Your task to perform on an android device: Set the phone to "Do not disturb". Image 0: 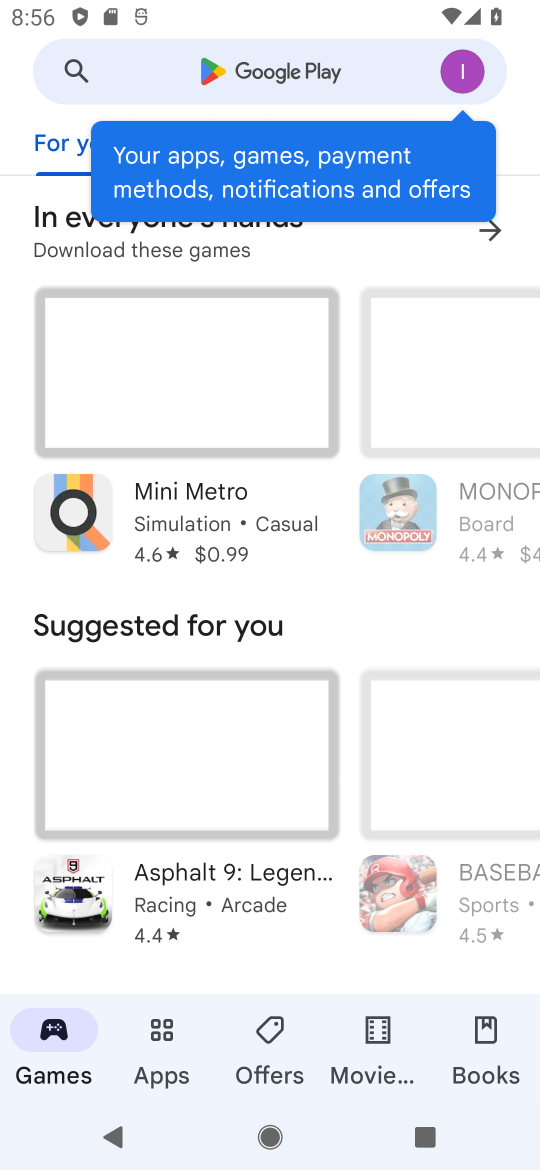
Step 0: press home button
Your task to perform on an android device: Set the phone to "Do not disturb". Image 1: 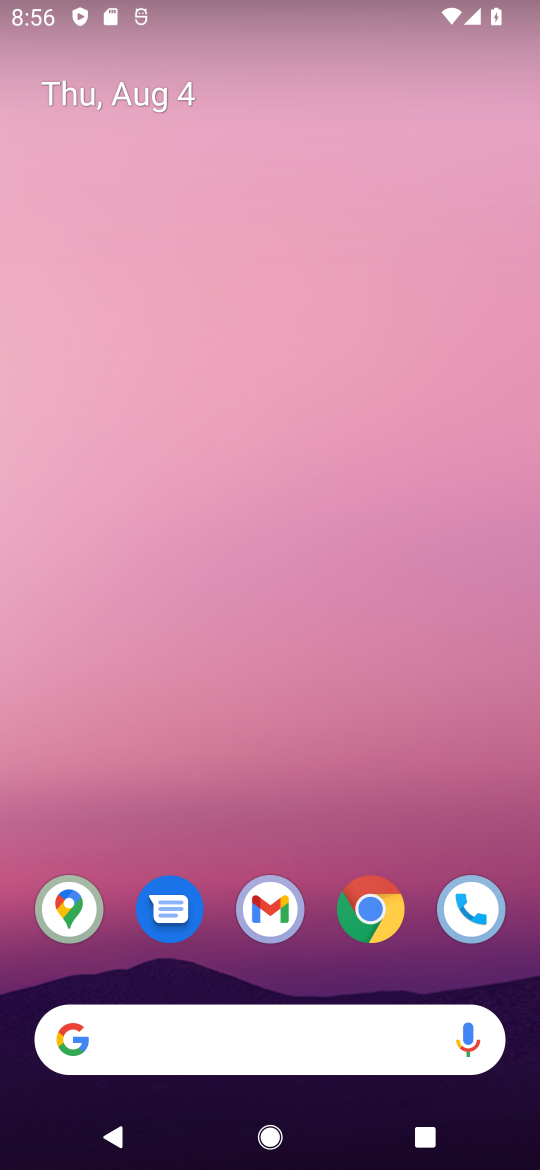
Step 1: drag from (314, 799) to (330, 329)
Your task to perform on an android device: Set the phone to "Do not disturb". Image 2: 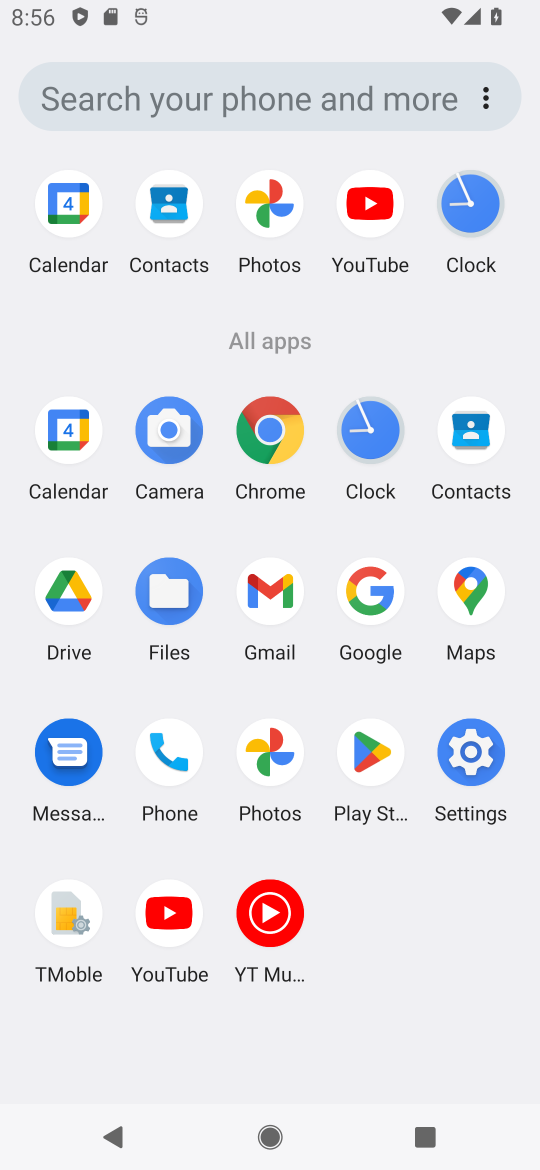
Step 2: click (471, 761)
Your task to perform on an android device: Set the phone to "Do not disturb". Image 3: 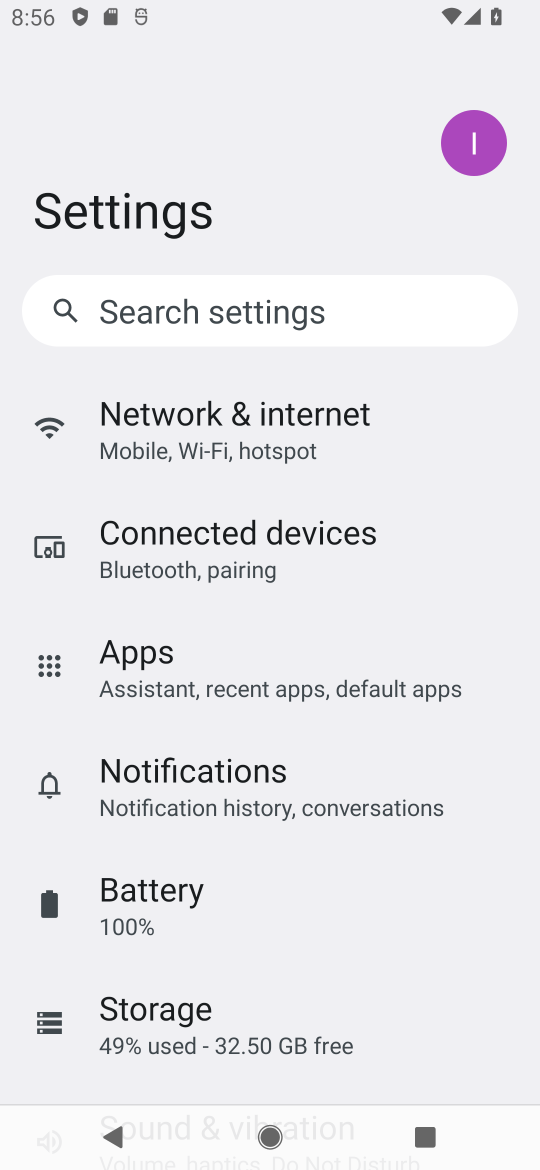
Step 3: drag from (428, 982) to (464, 687)
Your task to perform on an android device: Set the phone to "Do not disturb". Image 4: 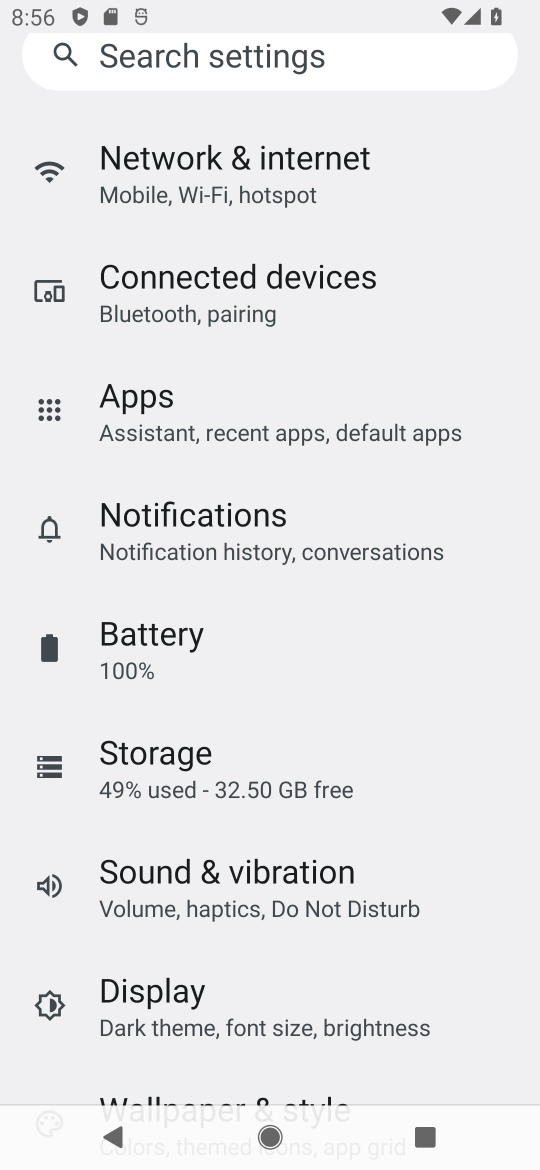
Step 4: drag from (465, 940) to (469, 640)
Your task to perform on an android device: Set the phone to "Do not disturb". Image 5: 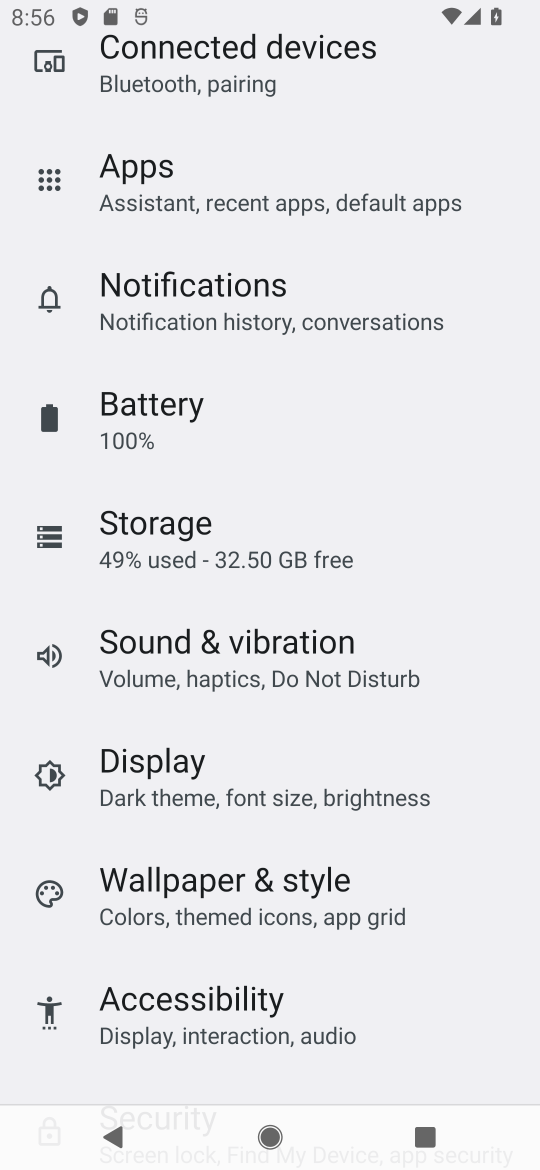
Step 5: drag from (467, 952) to (476, 645)
Your task to perform on an android device: Set the phone to "Do not disturb". Image 6: 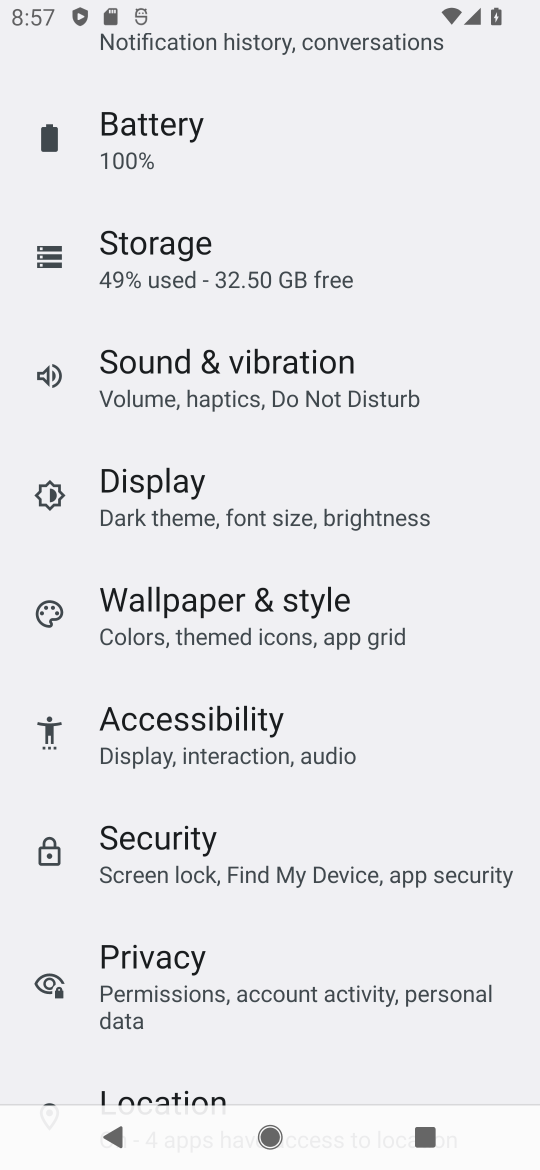
Step 6: drag from (410, 990) to (434, 650)
Your task to perform on an android device: Set the phone to "Do not disturb". Image 7: 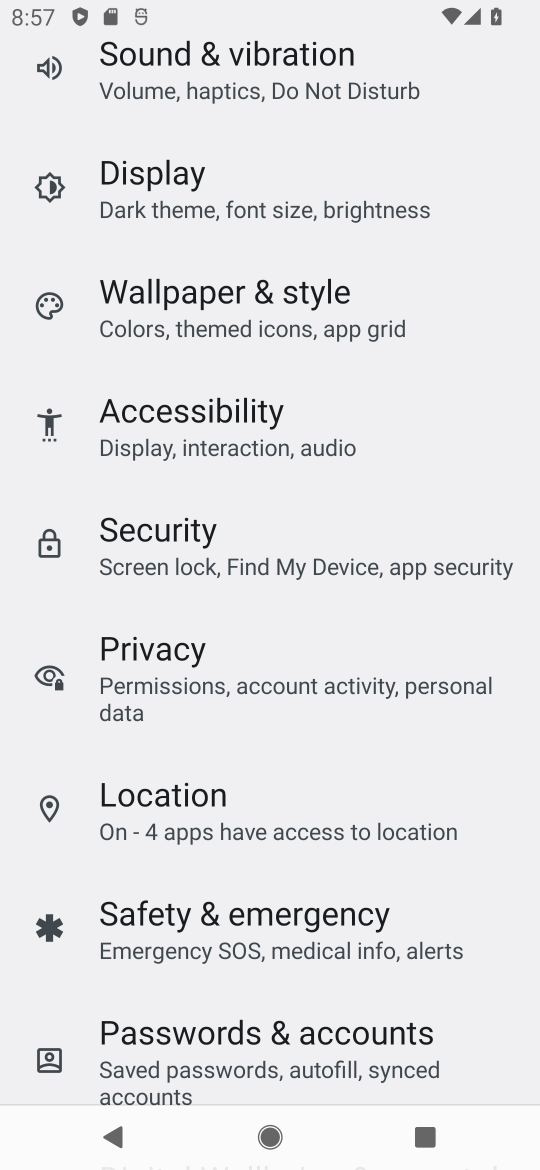
Step 7: drag from (490, 998) to (483, 692)
Your task to perform on an android device: Set the phone to "Do not disturb". Image 8: 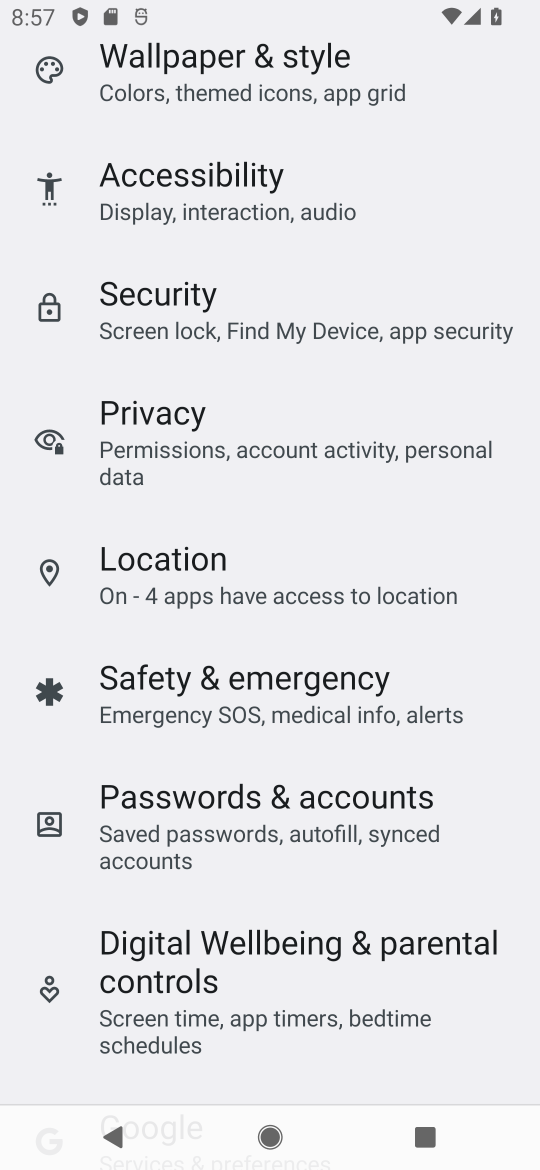
Step 8: drag from (456, 1019) to (476, 628)
Your task to perform on an android device: Set the phone to "Do not disturb". Image 9: 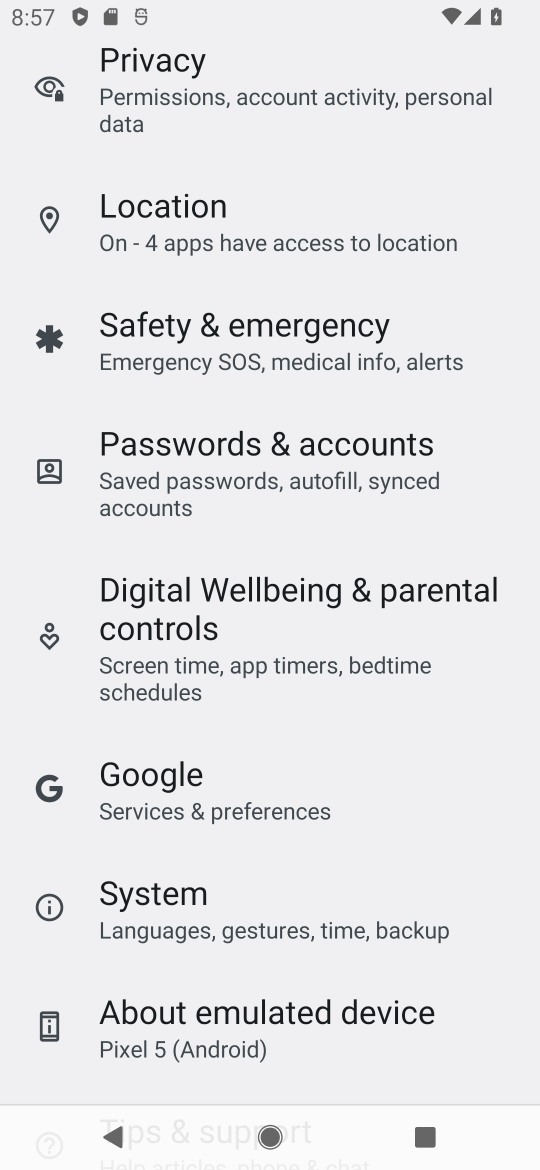
Step 9: drag from (466, 870) to (476, 566)
Your task to perform on an android device: Set the phone to "Do not disturb". Image 10: 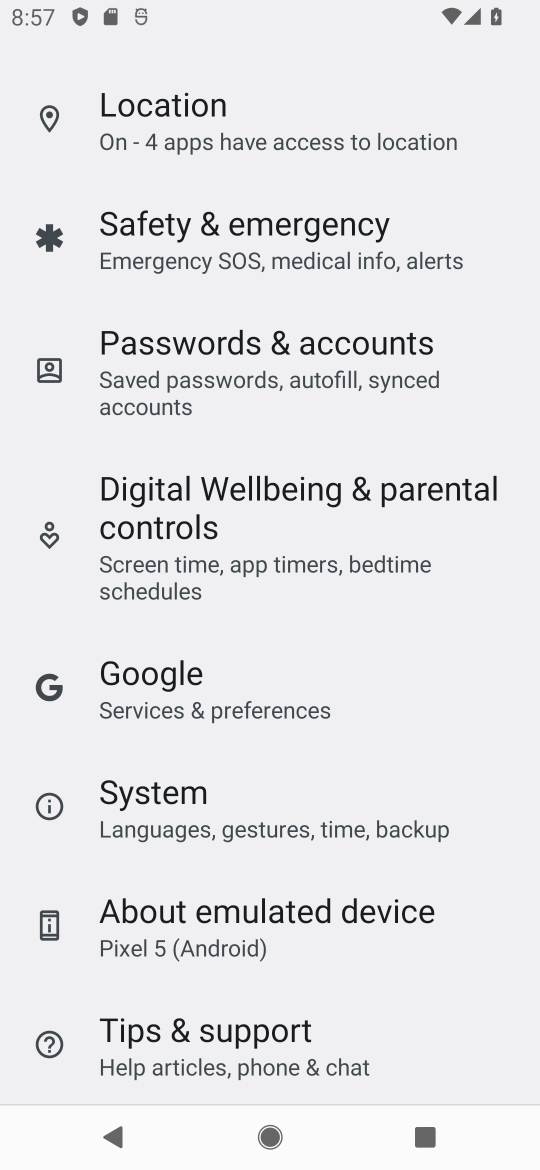
Step 10: drag from (474, 555) to (486, 803)
Your task to perform on an android device: Set the phone to "Do not disturb". Image 11: 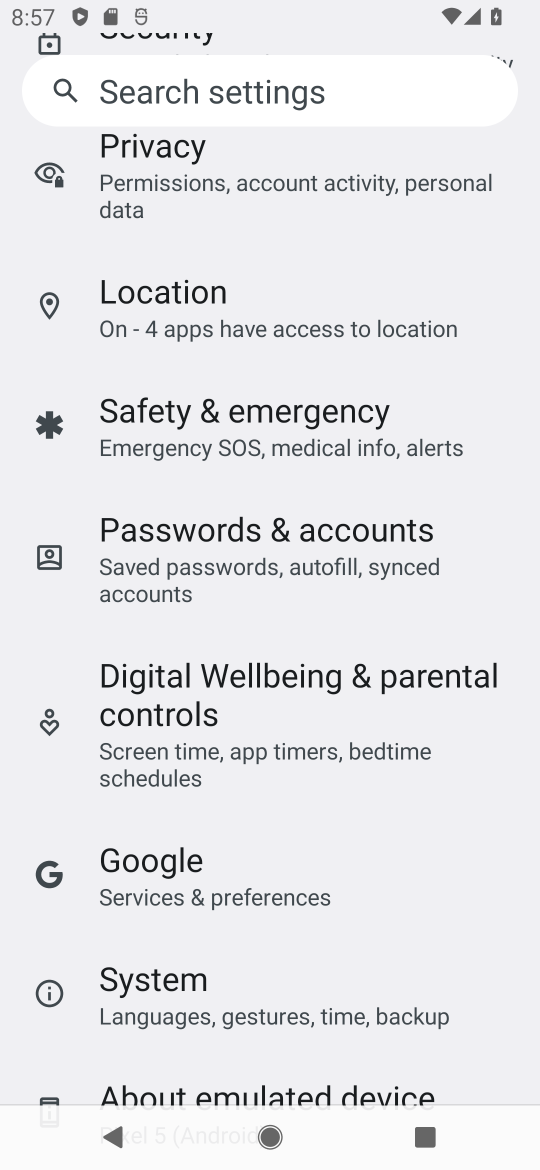
Step 11: drag from (503, 348) to (486, 638)
Your task to perform on an android device: Set the phone to "Do not disturb". Image 12: 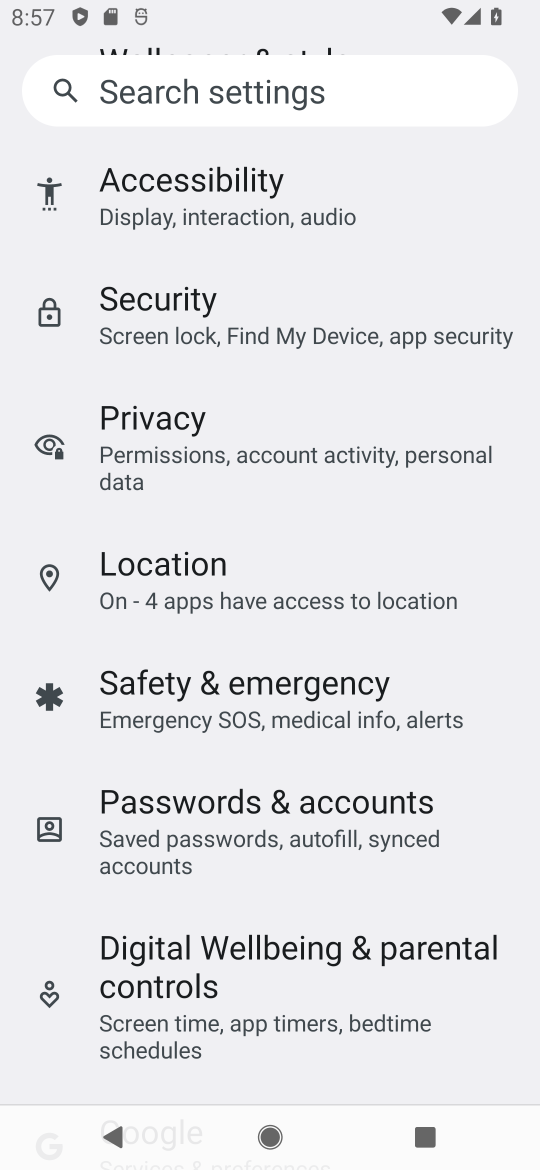
Step 12: drag from (473, 315) to (474, 657)
Your task to perform on an android device: Set the phone to "Do not disturb". Image 13: 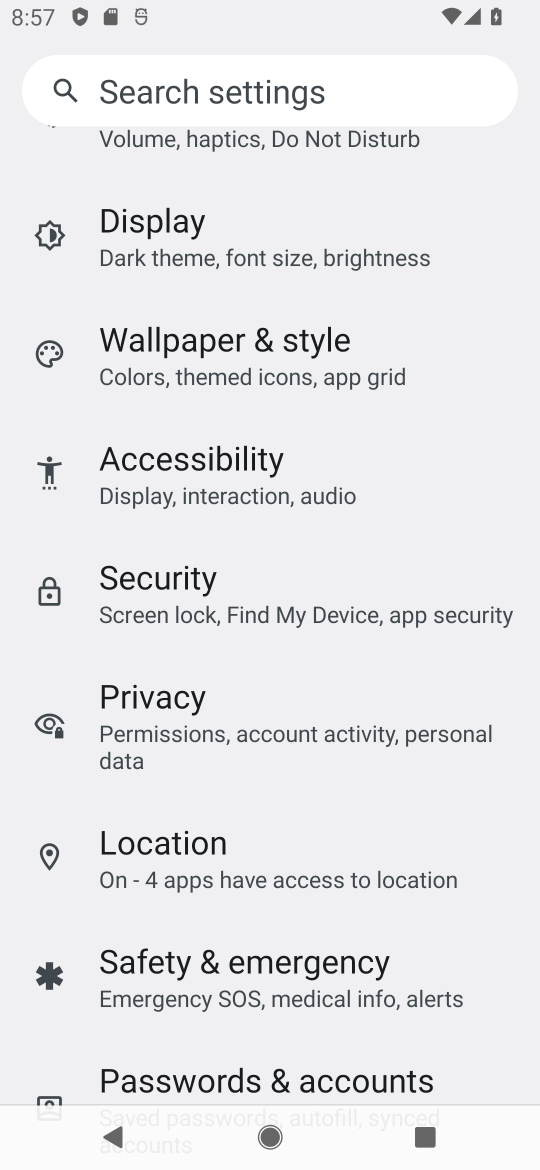
Step 13: drag from (458, 322) to (449, 683)
Your task to perform on an android device: Set the phone to "Do not disturb". Image 14: 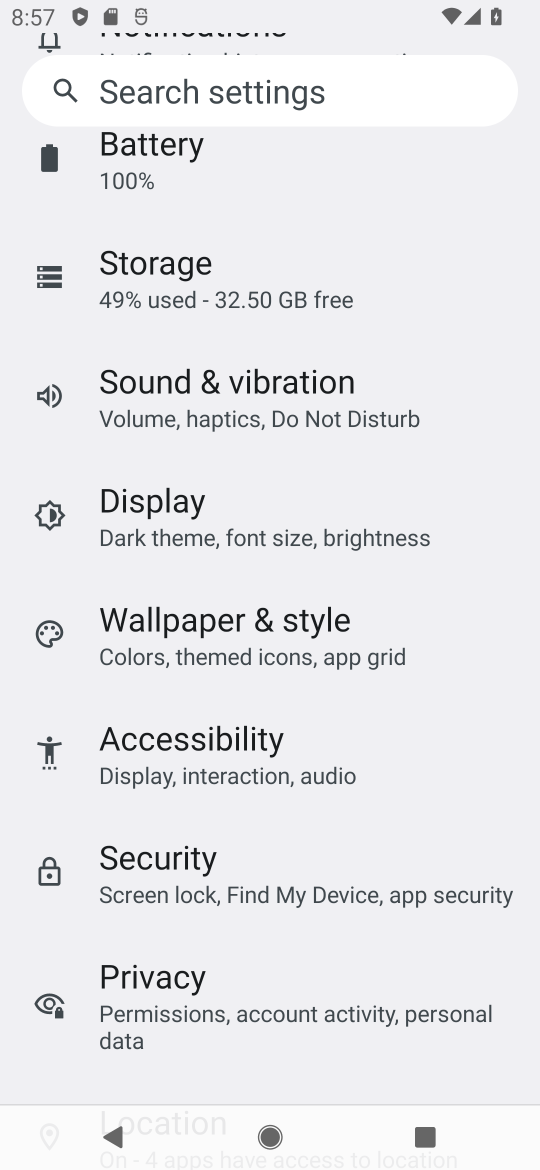
Step 14: drag from (458, 267) to (456, 643)
Your task to perform on an android device: Set the phone to "Do not disturb". Image 15: 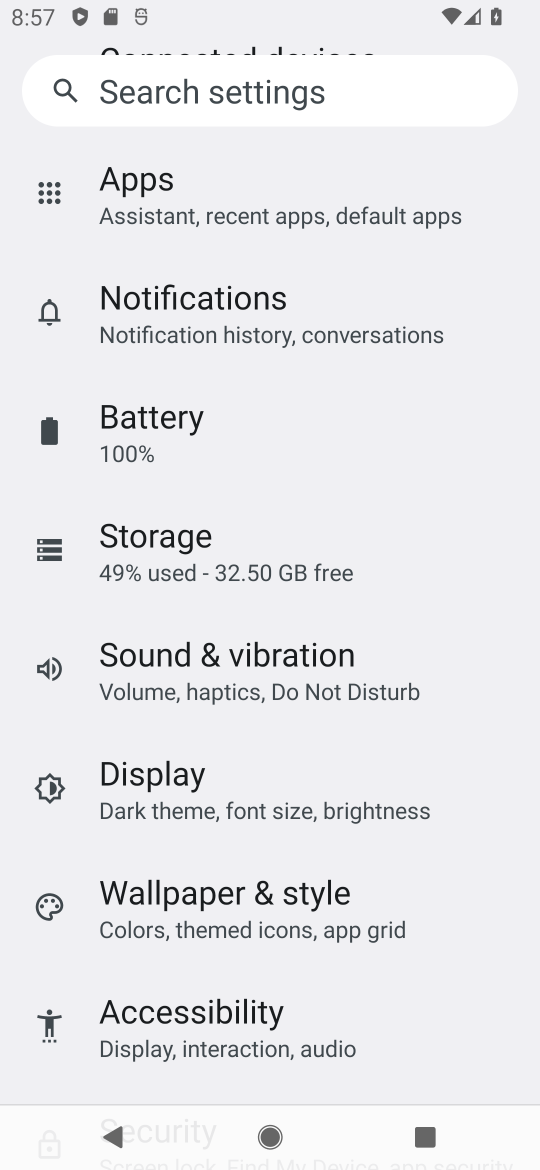
Step 15: click (299, 688)
Your task to perform on an android device: Set the phone to "Do not disturb". Image 16: 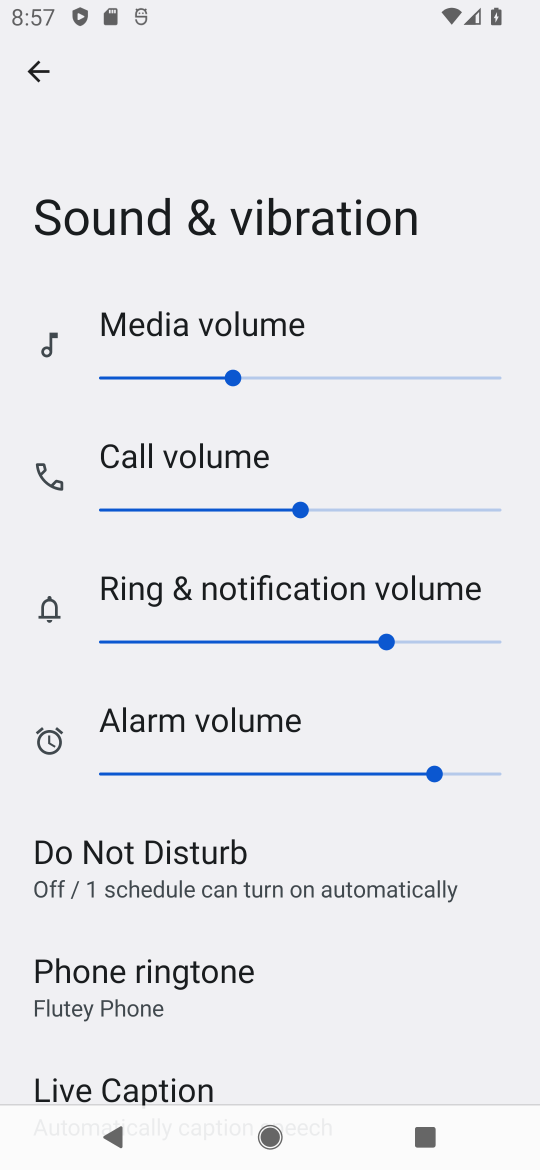
Step 16: click (238, 881)
Your task to perform on an android device: Set the phone to "Do not disturb". Image 17: 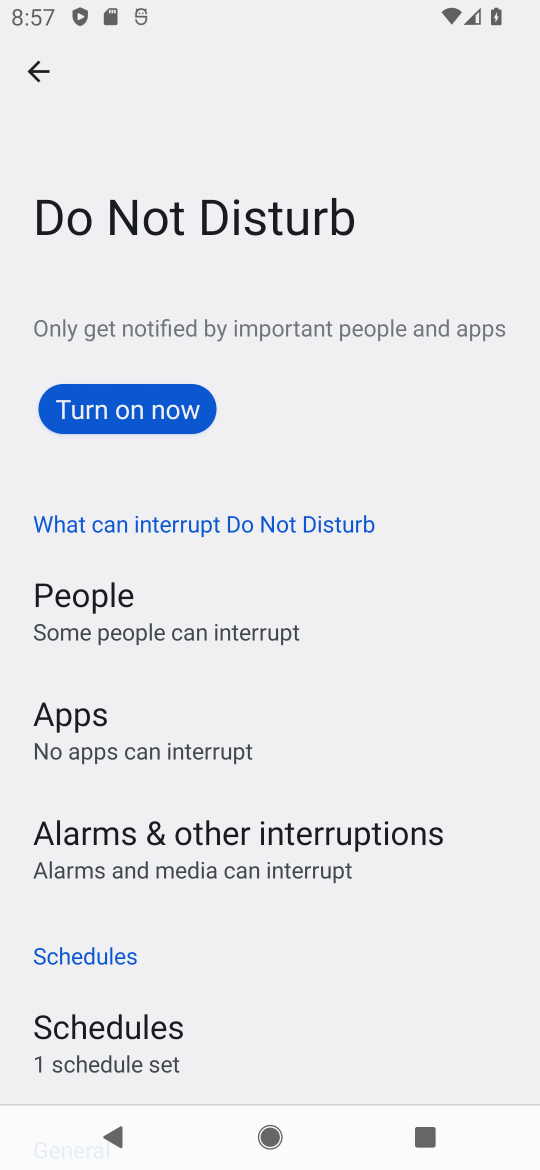
Step 17: click (154, 409)
Your task to perform on an android device: Set the phone to "Do not disturb". Image 18: 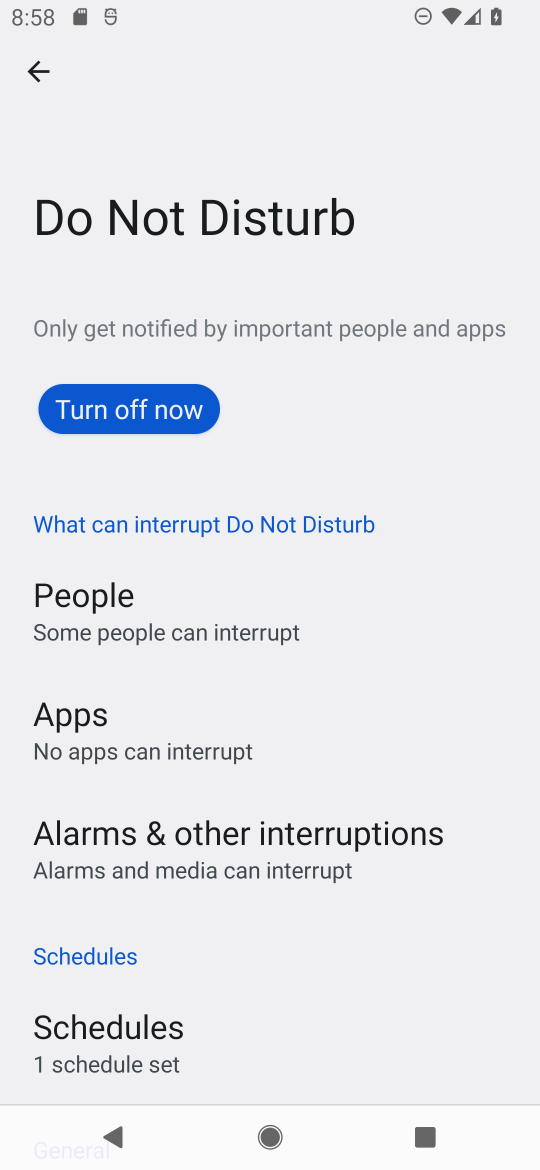
Step 18: task complete